Your task to perform on an android device: set an alarm Image 0: 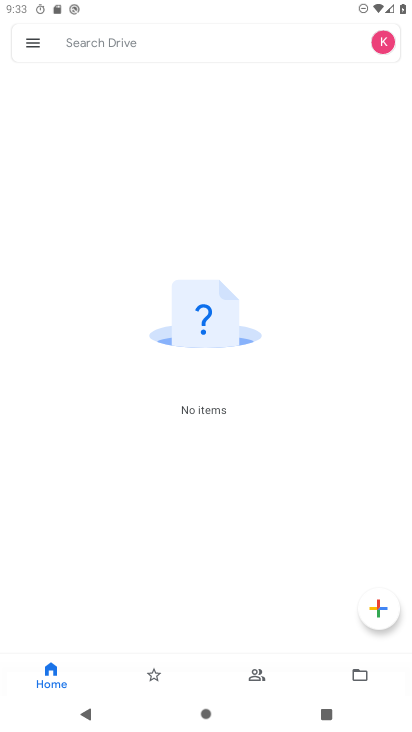
Step 0: press home button
Your task to perform on an android device: set an alarm Image 1: 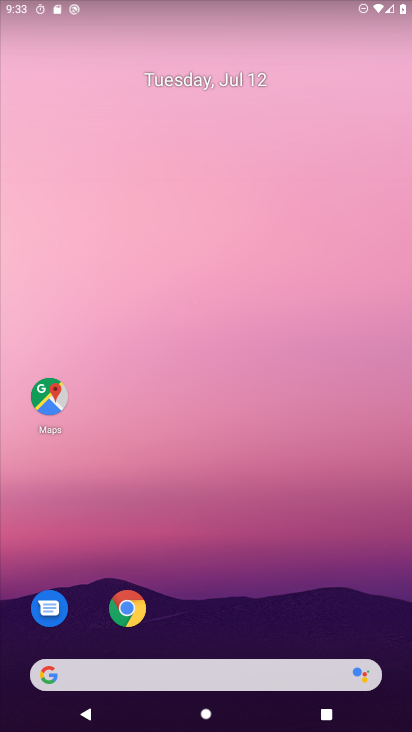
Step 1: drag from (186, 101) to (192, 35)
Your task to perform on an android device: set an alarm Image 2: 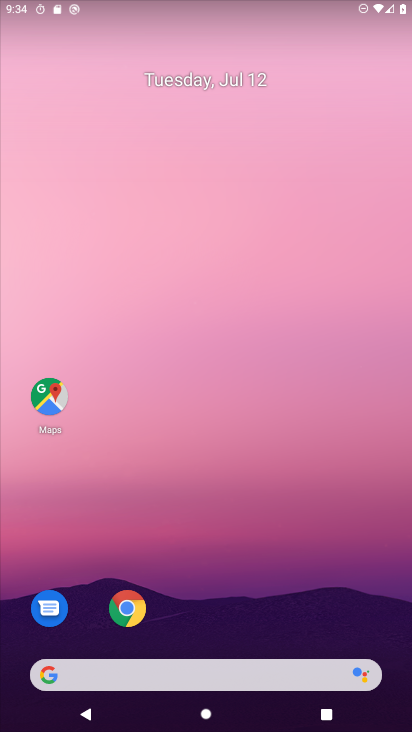
Step 2: drag from (199, 645) to (219, 107)
Your task to perform on an android device: set an alarm Image 3: 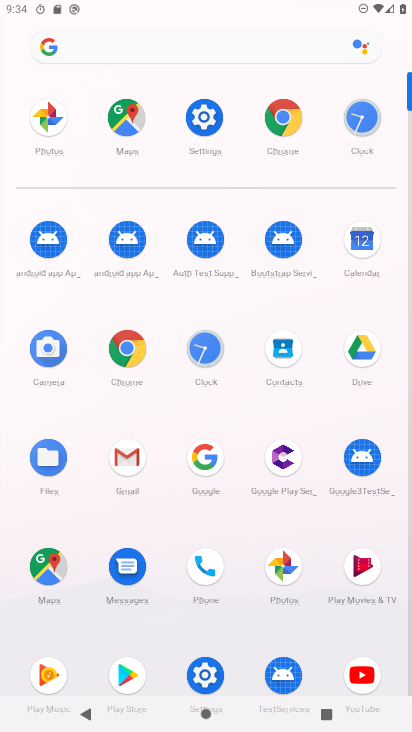
Step 3: click (361, 117)
Your task to perform on an android device: set an alarm Image 4: 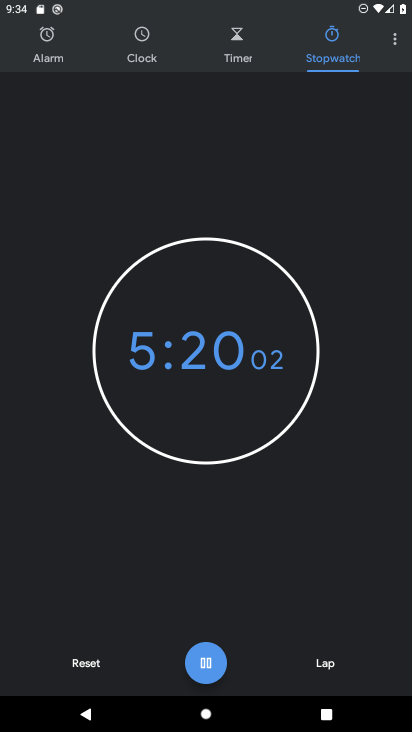
Step 4: click (60, 58)
Your task to perform on an android device: set an alarm Image 5: 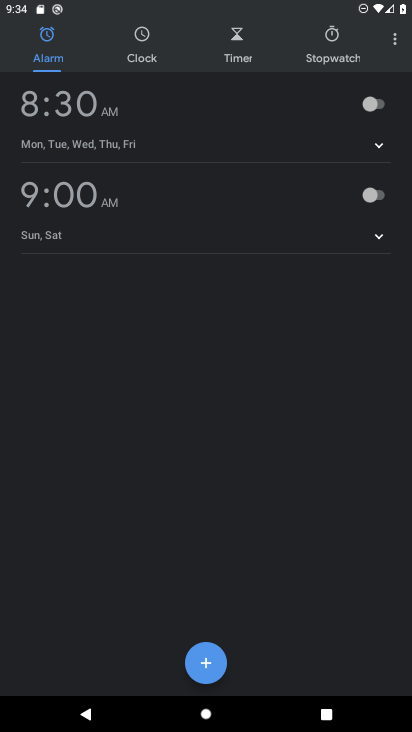
Step 5: click (383, 108)
Your task to perform on an android device: set an alarm Image 6: 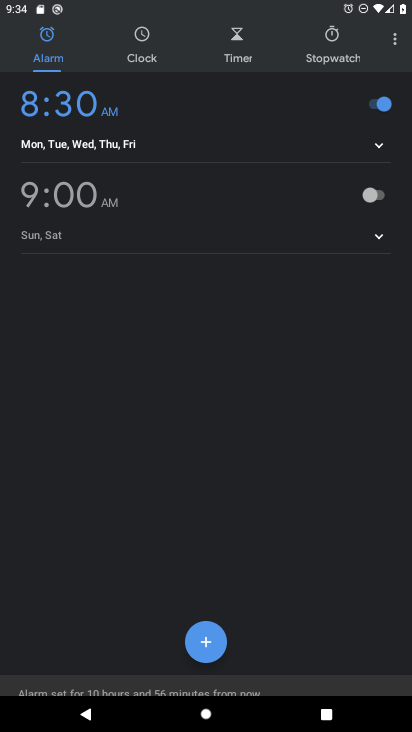
Step 6: task complete